Your task to perform on an android device: toggle improve location accuracy Image 0: 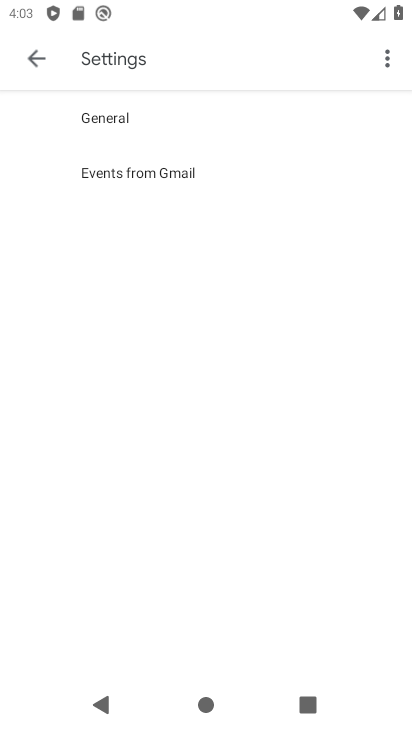
Step 0: press back button
Your task to perform on an android device: toggle improve location accuracy Image 1: 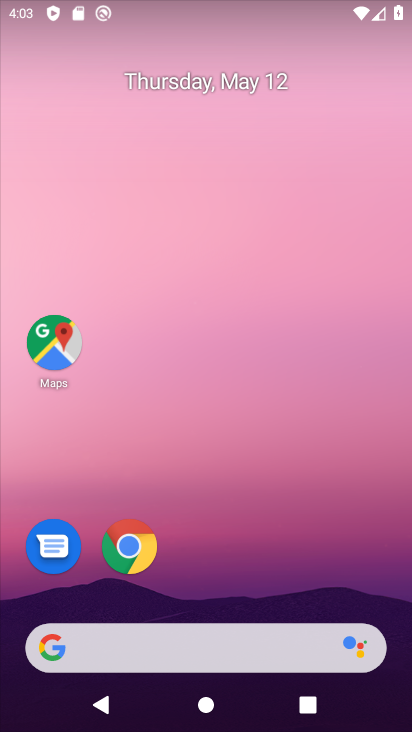
Step 1: drag from (244, 486) to (189, 14)
Your task to perform on an android device: toggle improve location accuracy Image 2: 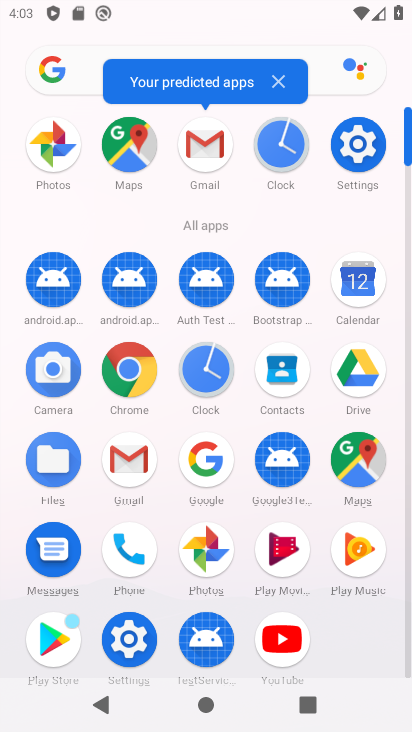
Step 2: drag from (6, 507) to (21, 216)
Your task to perform on an android device: toggle improve location accuracy Image 3: 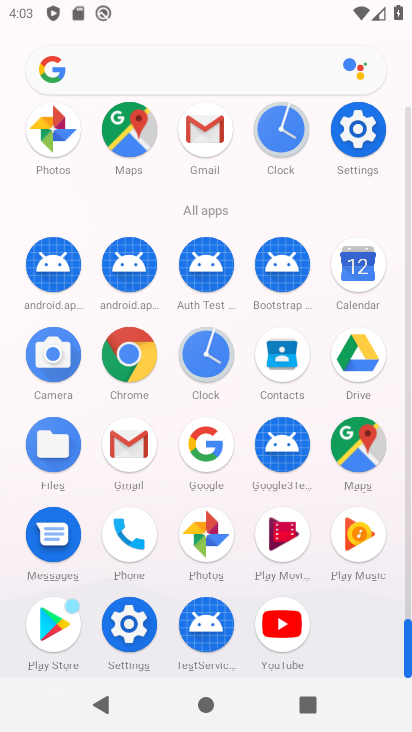
Step 3: click (125, 620)
Your task to perform on an android device: toggle improve location accuracy Image 4: 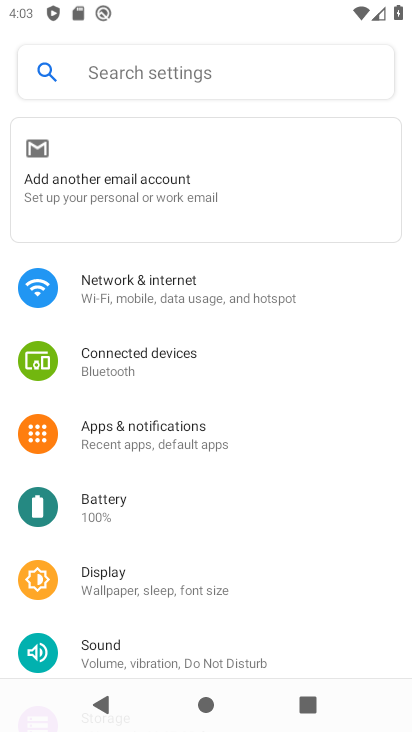
Step 4: drag from (298, 539) to (290, 156)
Your task to perform on an android device: toggle improve location accuracy Image 5: 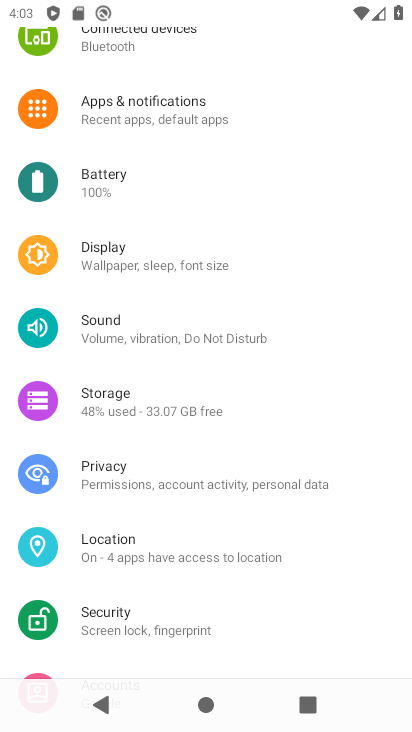
Step 5: click (141, 543)
Your task to perform on an android device: toggle improve location accuracy Image 6: 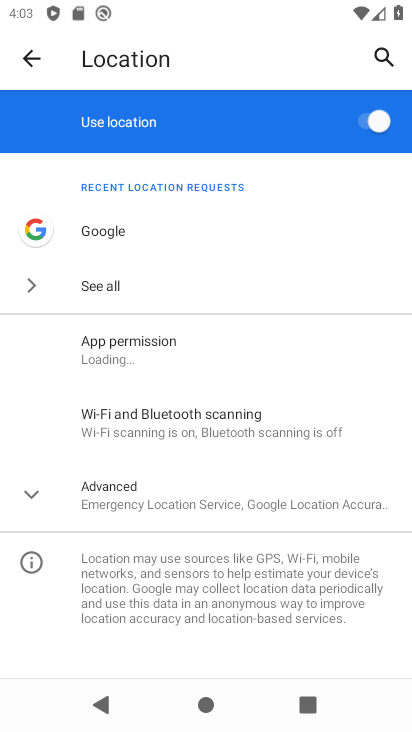
Step 6: click (40, 493)
Your task to perform on an android device: toggle improve location accuracy Image 7: 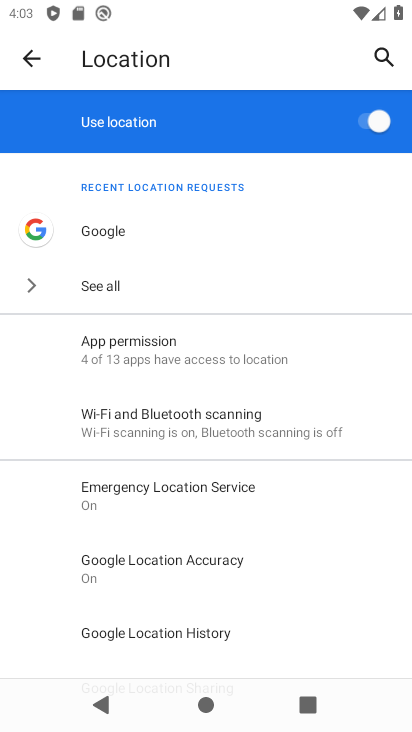
Step 7: click (217, 558)
Your task to perform on an android device: toggle improve location accuracy Image 8: 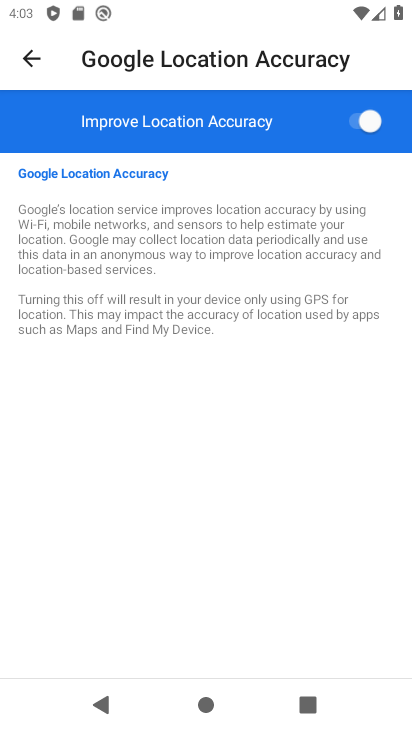
Step 8: click (365, 118)
Your task to perform on an android device: toggle improve location accuracy Image 9: 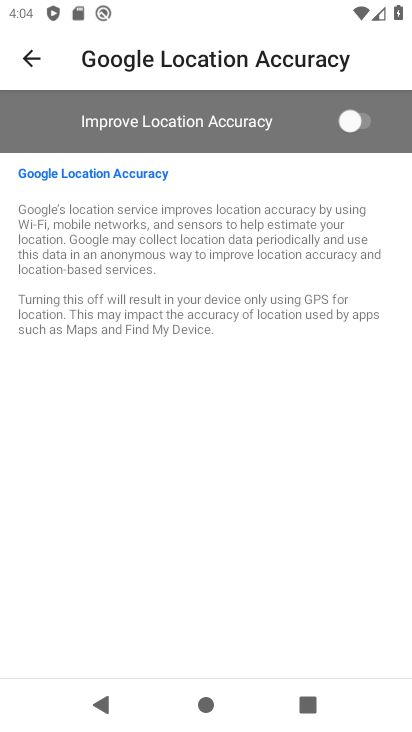
Step 9: task complete